Your task to perform on an android device: Open Chrome and go to the settings page Image 0: 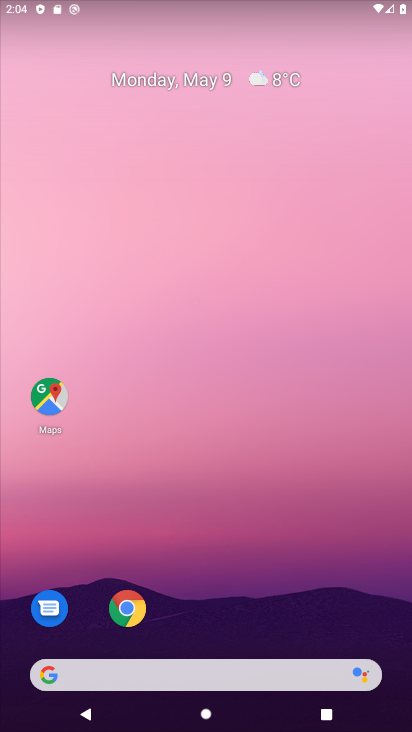
Step 0: click (136, 622)
Your task to perform on an android device: Open Chrome and go to the settings page Image 1: 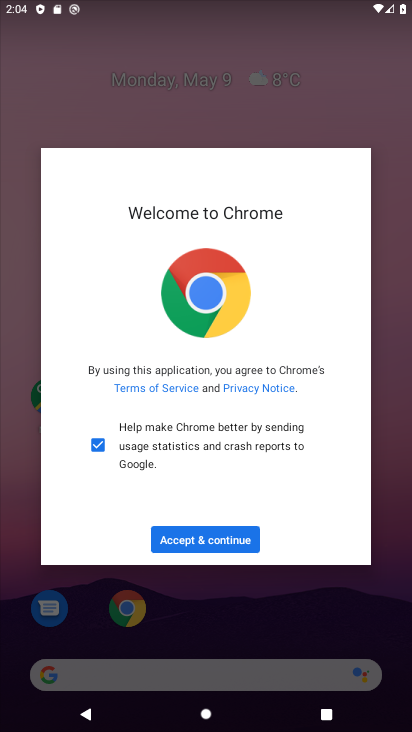
Step 1: click (217, 537)
Your task to perform on an android device: Open Chrome and go to the settings page Image 2: 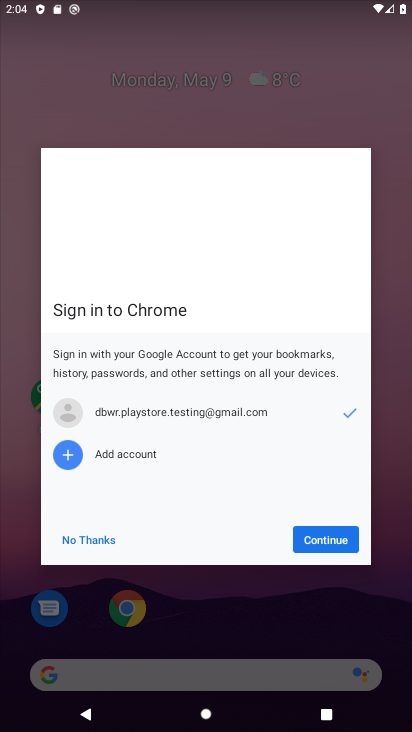
Step 2: click (337, 536)
Your task to perform on an android device: Open Chrome and go to the settings page Image 3: 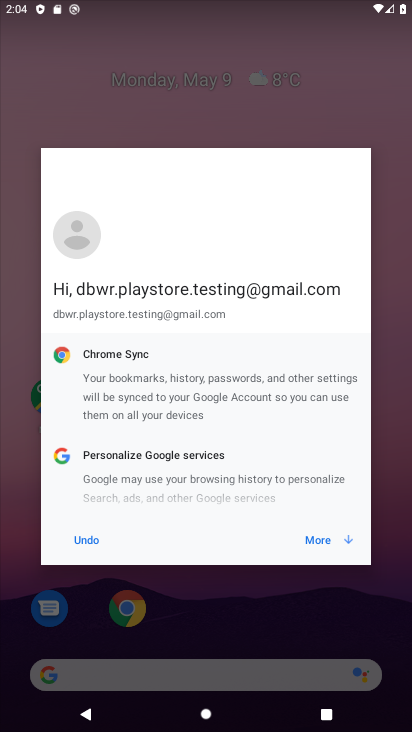
Step 3: click (337, 536)
Your task to perform on an android device: Open Chrome and go to the settings page Image 4: 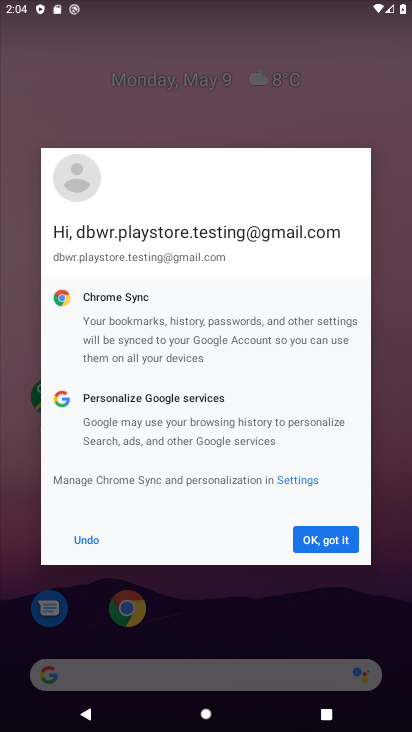
Step 4: click (337, 536)
Your task to perform on an android device: Open Chrome and go to the settings page Image 5: 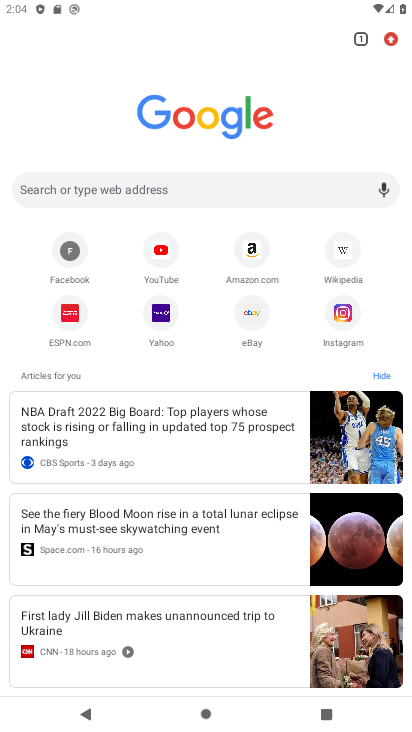
Step 5: click (390, 43)
Your task to perform on an android device: Open Chrome and go to the settings page Image 6: 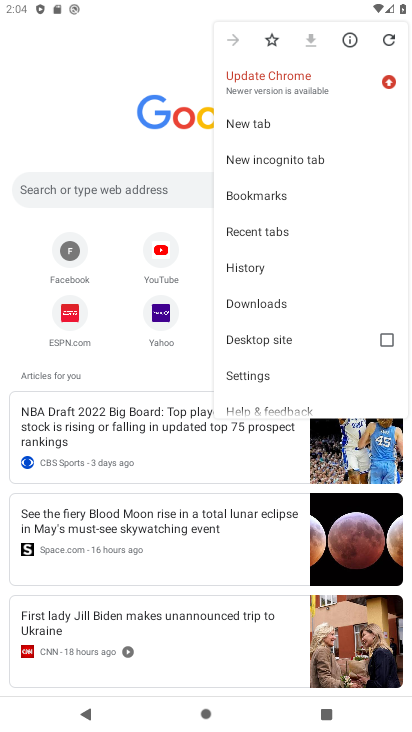
Step 6: click (284, 379)
Your task to perform on an android device: Open Chrome and go to the settings page Image 7: 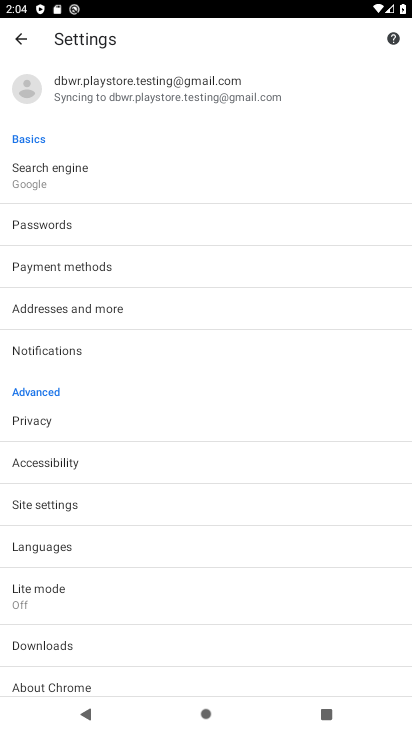
Step 7: task complete